Your task to perform on an android device: search for starred emails in the gmail app Image 0: 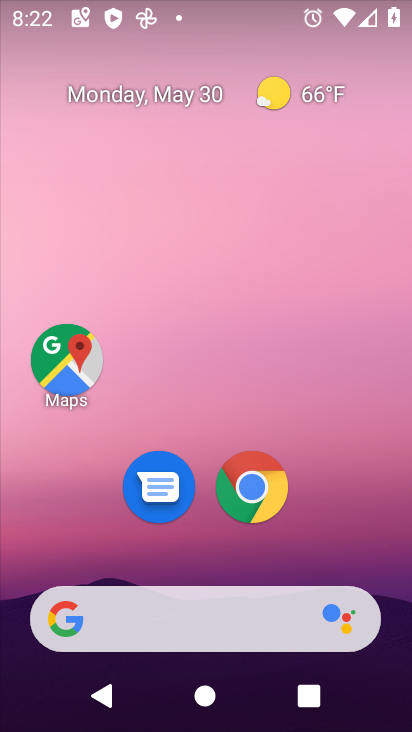
Step 0: press home button
Your task to perform on an android device: search for starred emails in the gmail app Image 1: 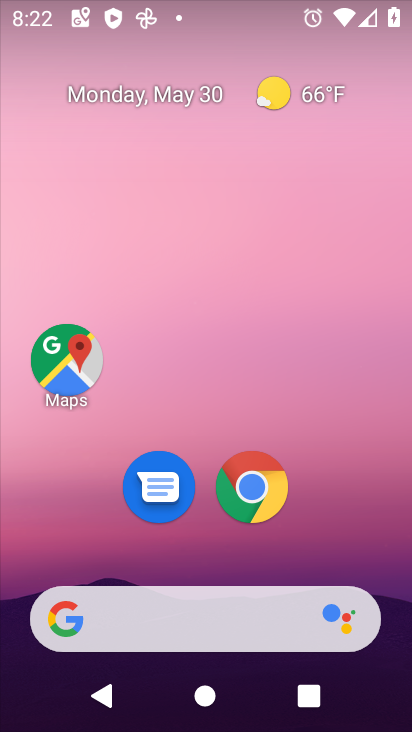
Step 1: click (314, 58)
Your task to perform on an android device: search for starred emails in the gmail app Image 2: 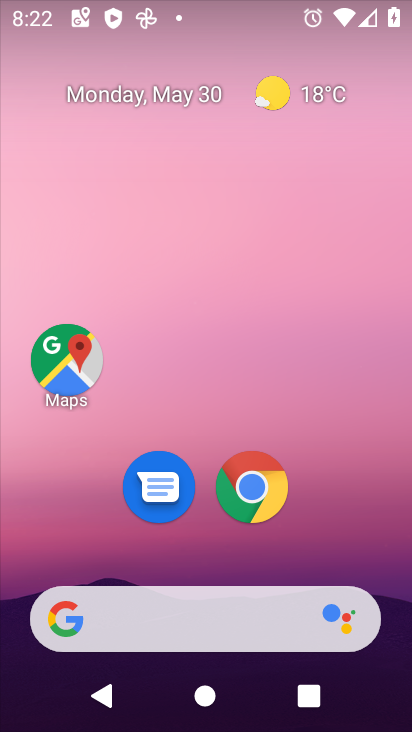
Step 2: drag from (330, 529) to (221, 40)
Your task to perform on an android device: search for starred emails in the gmail app Image 3: 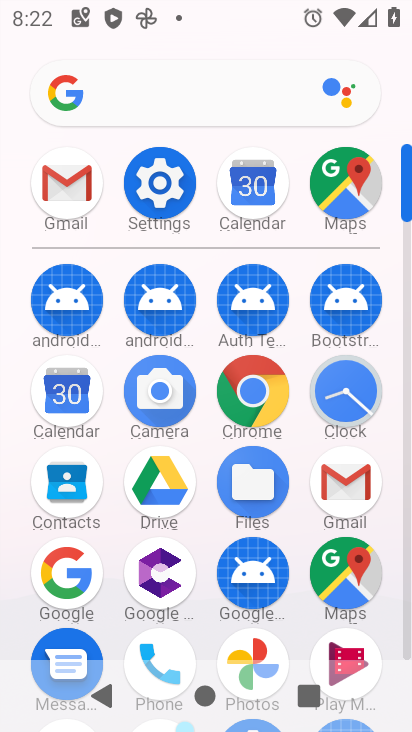
Step 3: click (69, 173)
Your task to perform on an android device: search for starred emails in the gmail app Image 4: 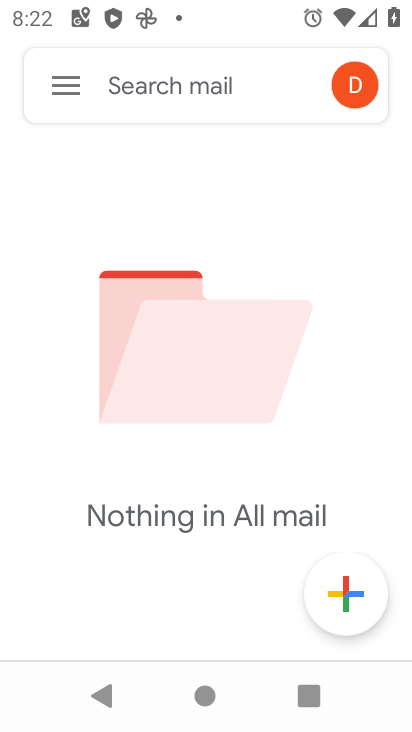
Step 4: click (60, 80)
Your task to perform on an android device: search for starred emails in the gmail app Image 5: 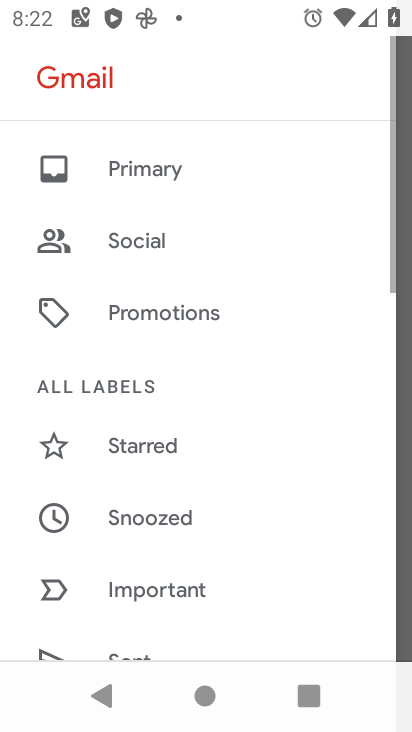
Step 5: drag from (295, 572) to (353, 176)
Your task to perform on an android device: search for starred emails in the gmail app Image 6: 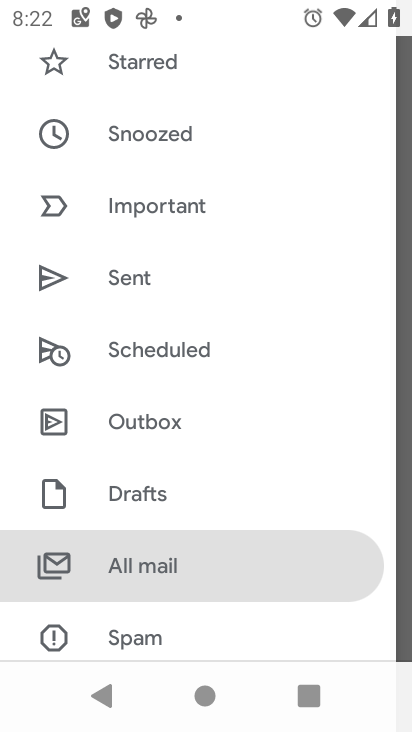
Step 6: click (145, 60)
Your task to perform on an android device: search for starred emails in the gmail app Image 7: 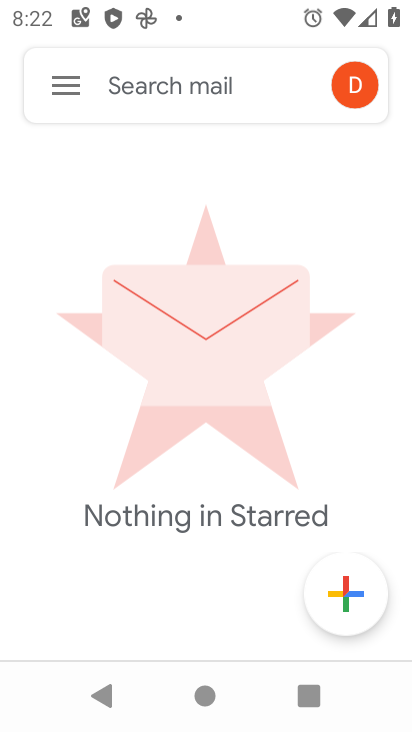
Step 7: task complete